Your task to perform on an android device: allow notifications from all sites in the chrome app Image 0: 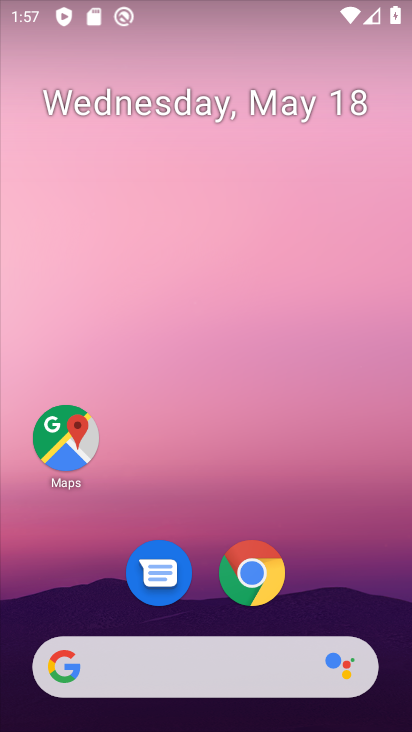
Step 0: drag from (300, 579) to (334, 143)
Your task to perform on an android device: allow notifications from all sites in the chrome app Image 1: 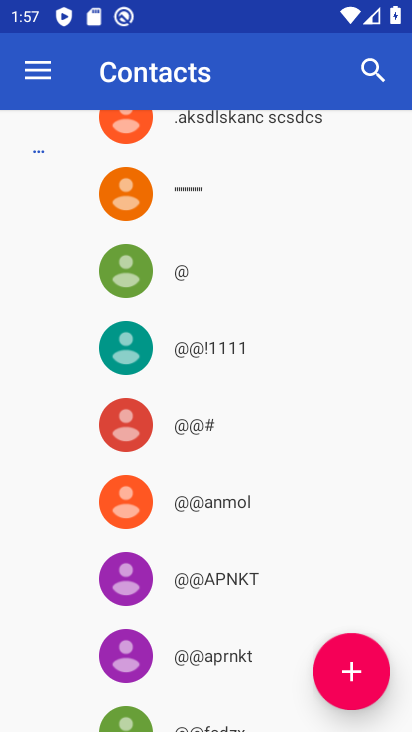
Step 1: press home button
Your task to perform on an android device: allow notifications from all sites in the chrome app Image 2: 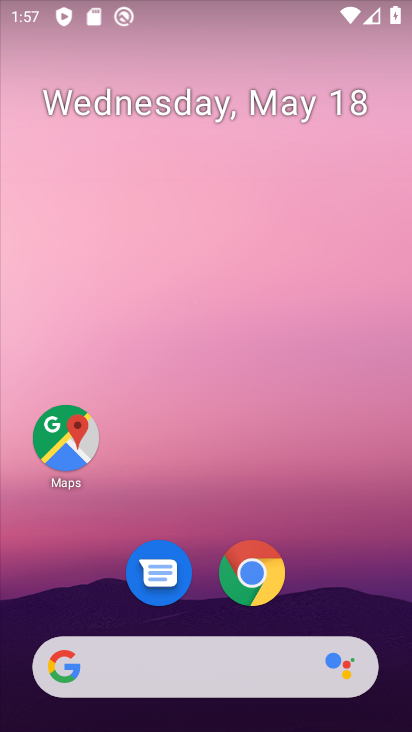
Step 2: click (247, 575)
Your task to perform on an android device: allow notifications from all sites in the chrome app Image 3: 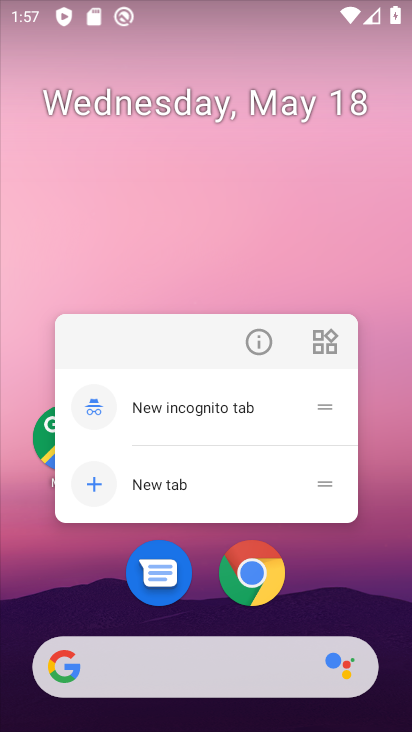
Step 3: click (259, 582)
Your task to perform on an android device: allow notifications from all sites in the chrome app Image 4: 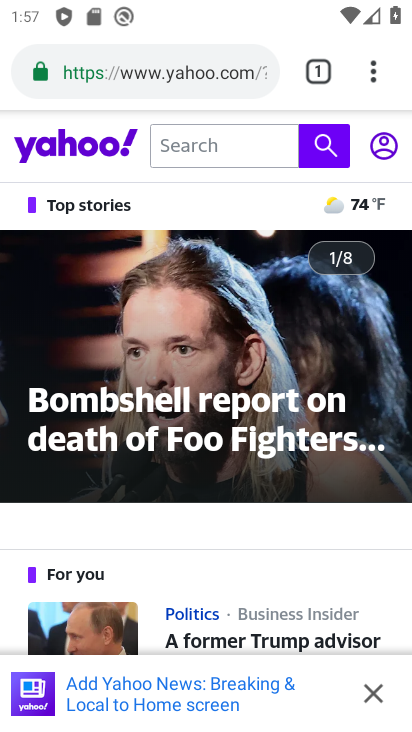
Step 4: drag from (374, 80) to (204, 582)
Your task to perform on an android device: allow notifications from all sites in the chrome app Image 5: 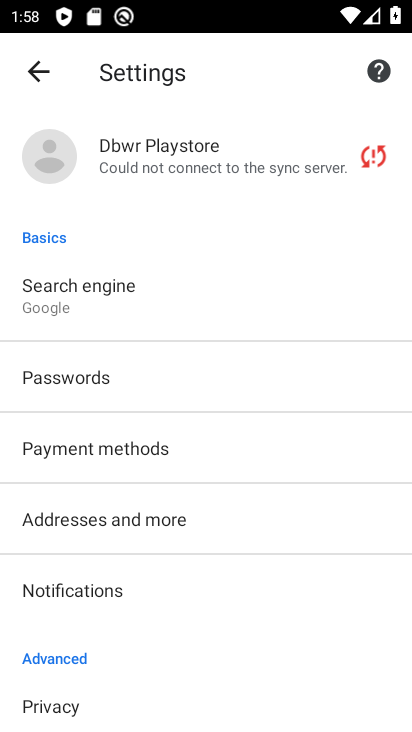
Step 5: click (77, 589)
Your task to perform on an android device: allow notifications from all sites in the chrome app Image 6: 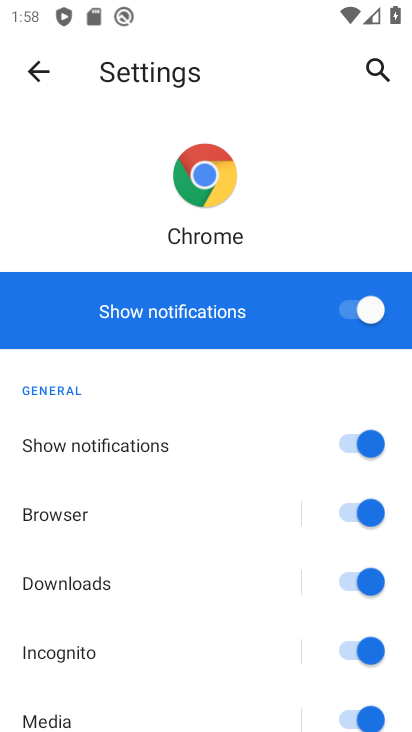
Step 6: task complete